Your task to perform on an android device: turn off location history Image 0: 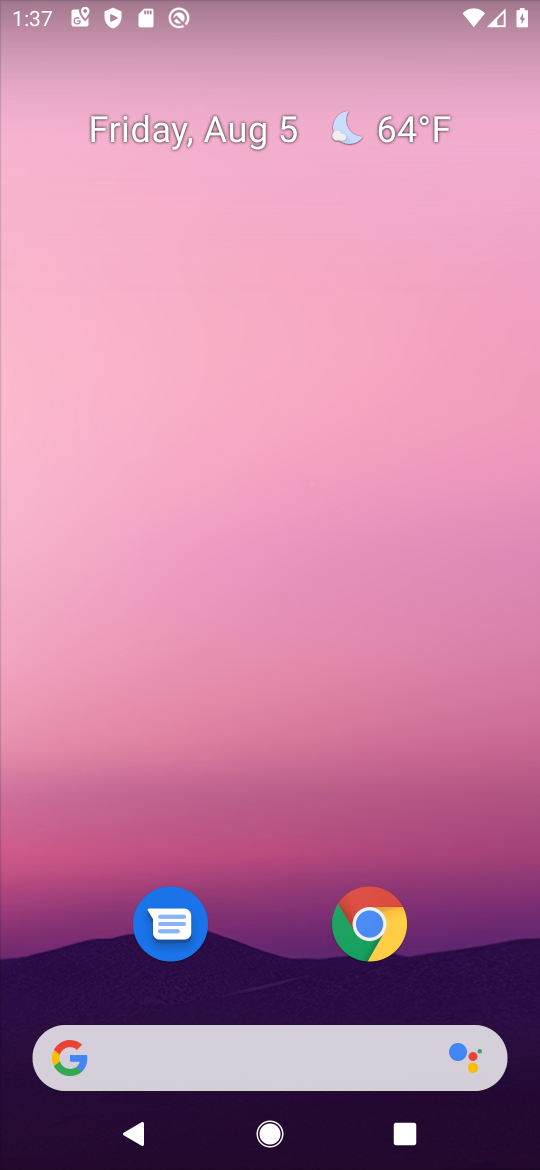
Step 0: drag from (236, 1033) to (339, 197)
Your task to perform on an android device: turn off location history Image 1: 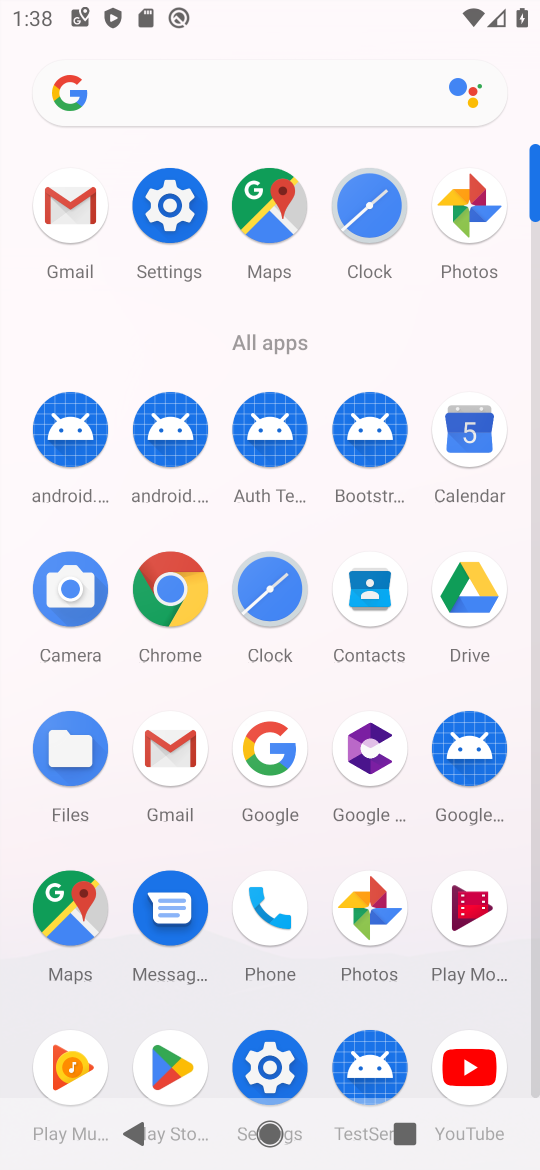
Step 1: click (167, 202)
Your task to perform on an android device: turn off location history Image 2: 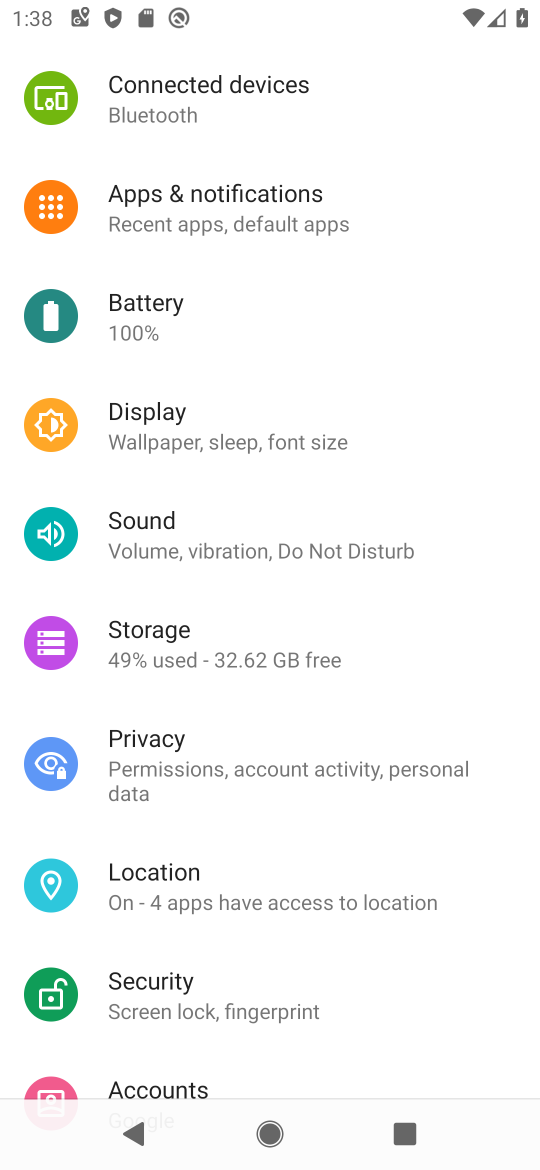
Step 2: click (142, 905)
Your task to perform on an android device: turn off location history Image 3: 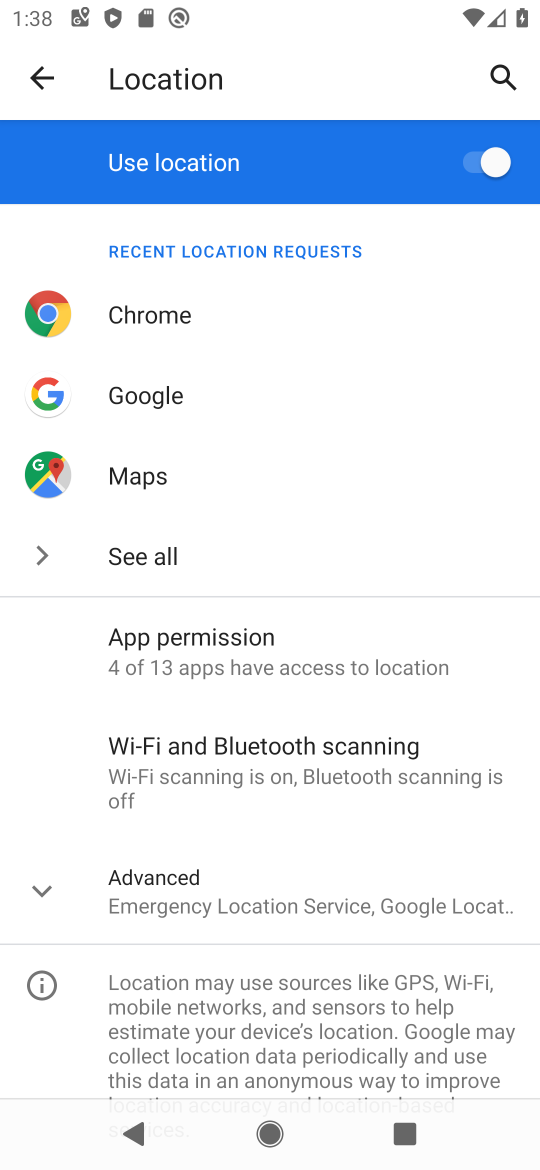
Step 3: click (253, 905)
Your task to perform on an android device: turn off location history Image 4: 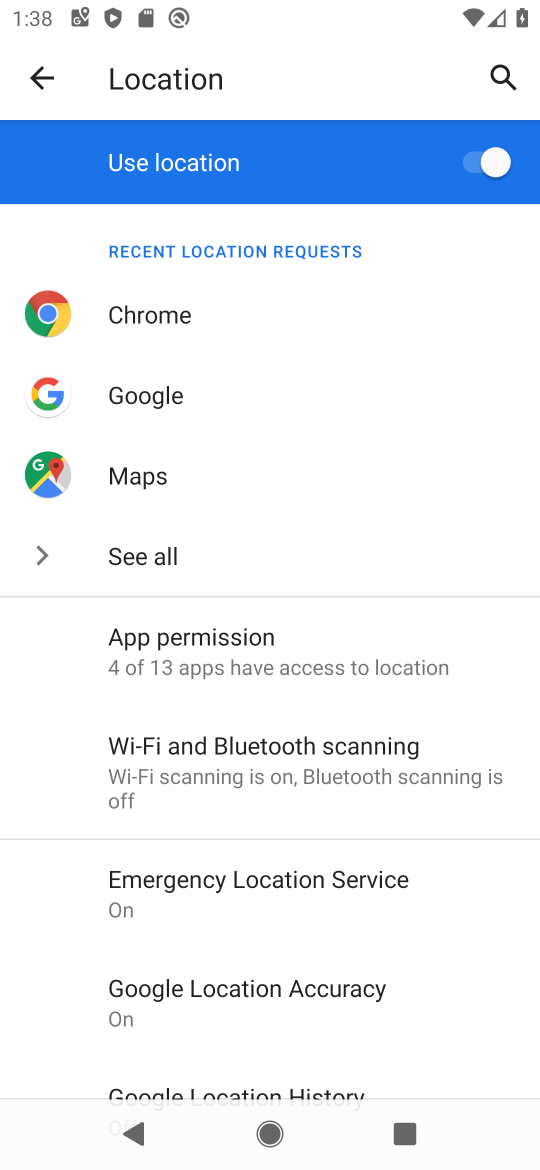
Step 4: task complete